Your task to perform on an android device: Is it going to rain today? Image 0: 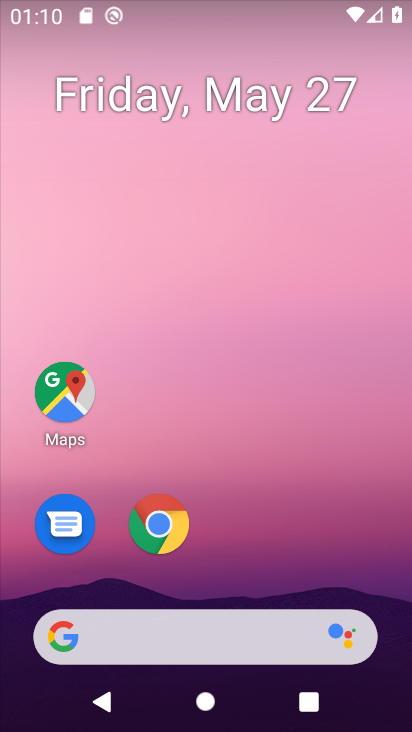
Step 0: click (201, 642)
Your task to perform on an android device: Is it going to rain today? Image 1: 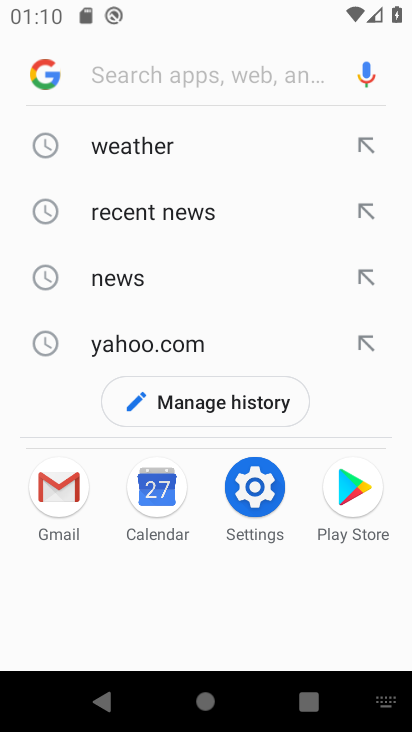
Step 1: click (94, 153)
Your task to perform on an android device: Is it going to rain today? Image 2: 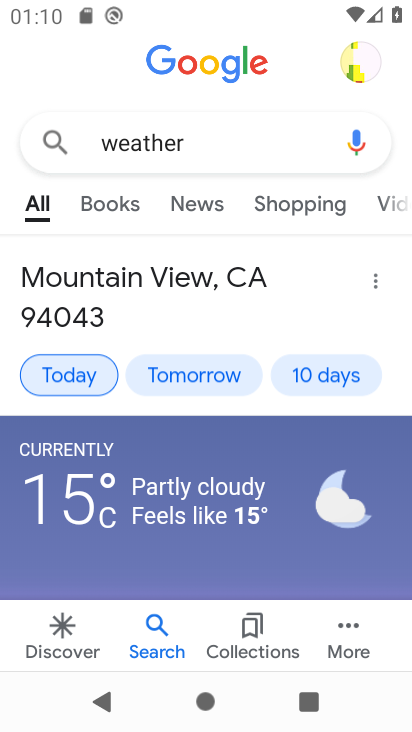
Step 2: click (94, 364)
Your task to perform on an android device: Is it going to rain today? Image 3: 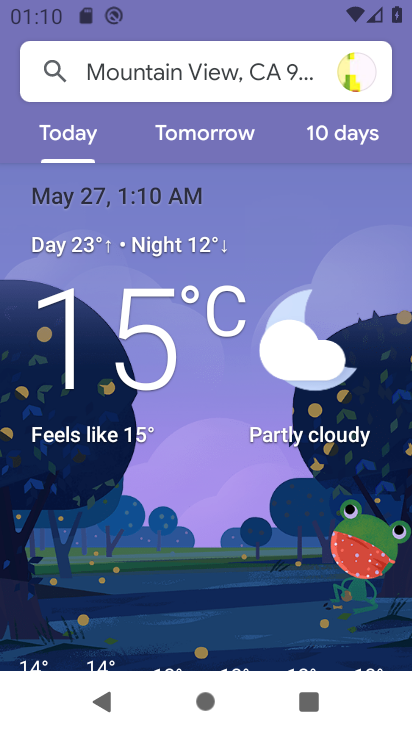
Step 3: task complete